Your task to perform on an android device: turn pop-ups off in chrome Image 0: 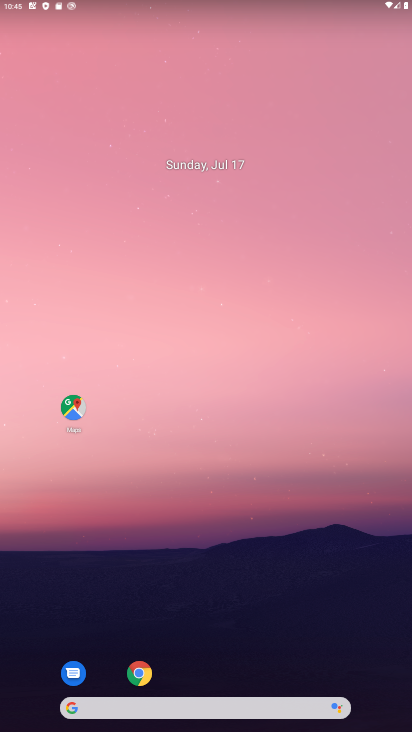
Step 0: click (144, 674)
Your task to perform on an android device: turn pop-ups off in chrome Image 1: 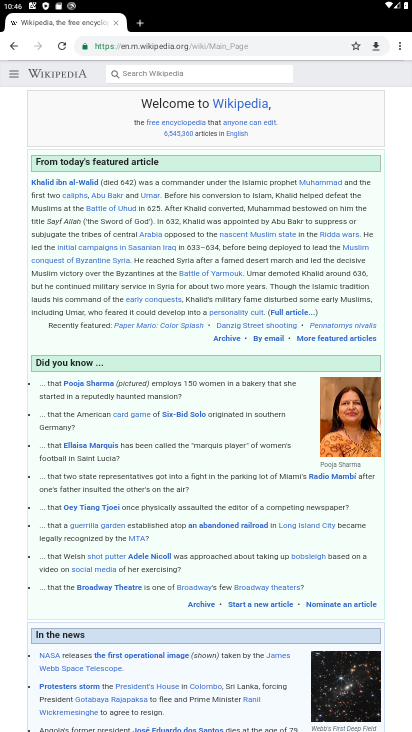
Step 1: click (396, 45)
Your task to perform on an android device: turn pop-ups off in chrome Image 2: 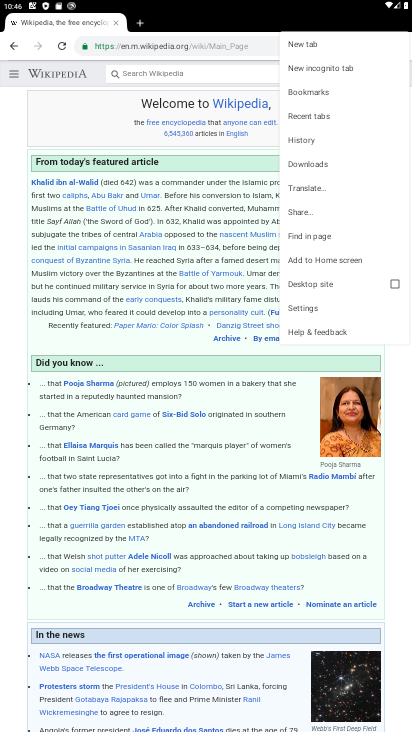
Step 2: click (311, 305)
Your task to perform on an android device: turn pop-ups off in chrome Image 3: 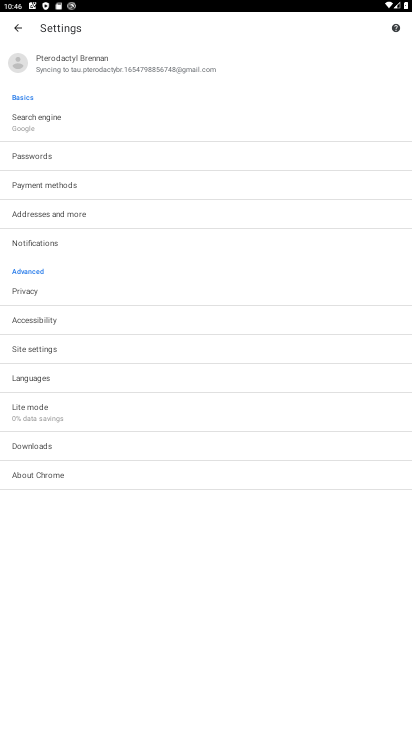
Step 3: click (55, 352)
Your task to perform on an android device: turn pop-ups off in chrome Image 4: 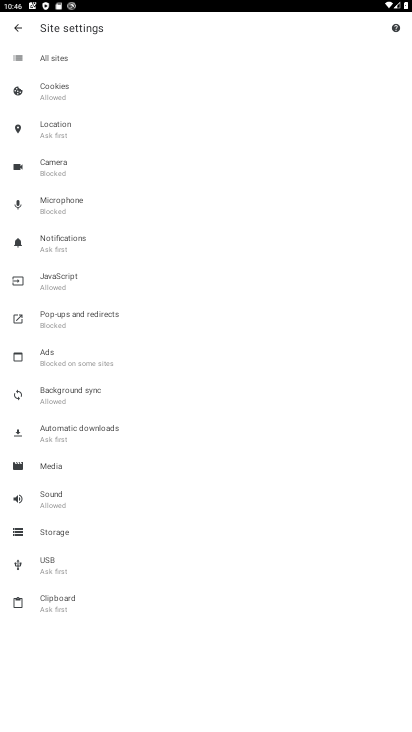
Step 4: click (104, 314)
Your task to perform on an android device: turn pop-ups off in chrome Image 5: 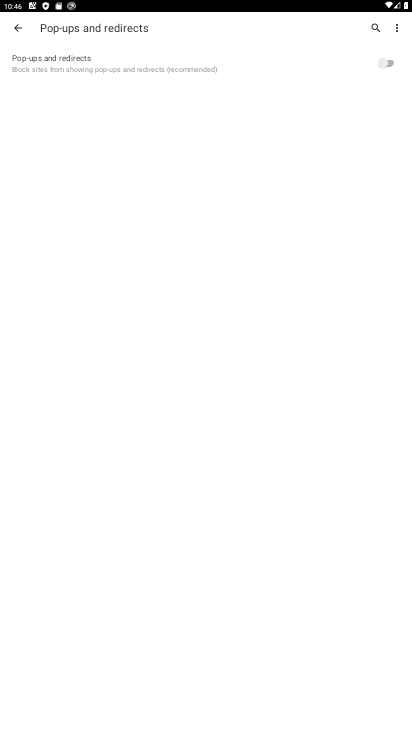
Step 5: task complete